Your task to perform on an android device: Open Reddit.com Image 0: 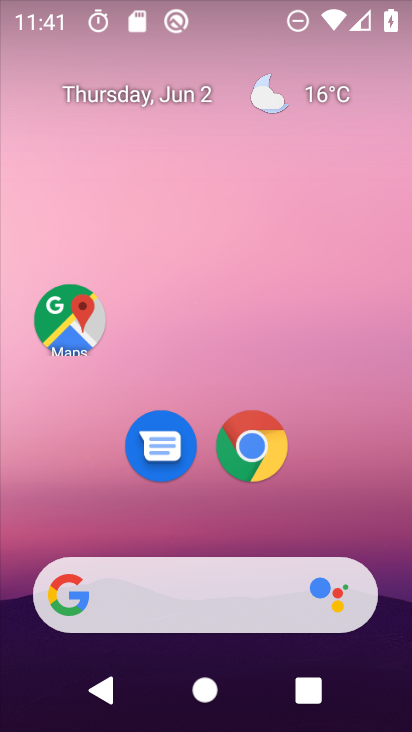
Step 0: click (350, 77)
Your task to perform on an android device: Open Reddit.com Image 1: 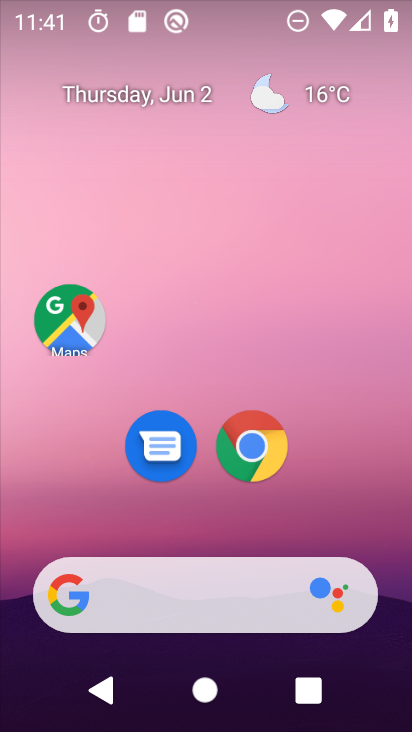
Step 1: drag from (347, 507) to (368, 82)
Your task to perform on an android device: Open Reddit.com Image 2: 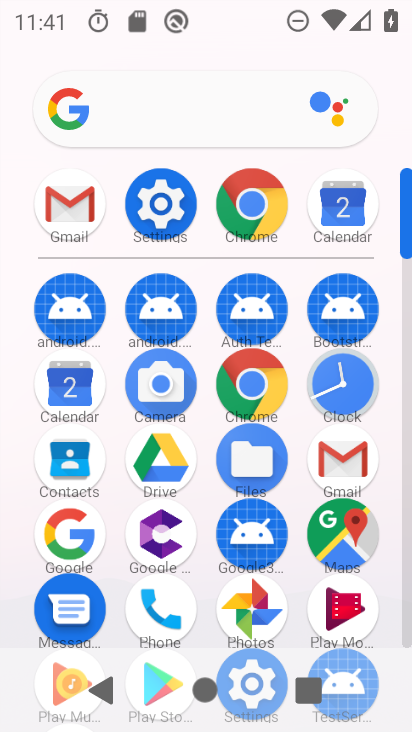
Step 2: click (262, 389)
Your task to perform on an android device: Open Reddit.com Image 3: 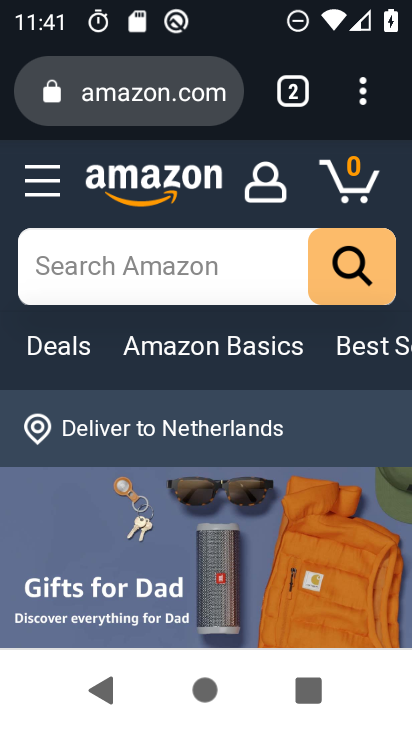
Step 3: click (187, 106)
Your task to perform on an android device: Open Reddit.com Image 4: 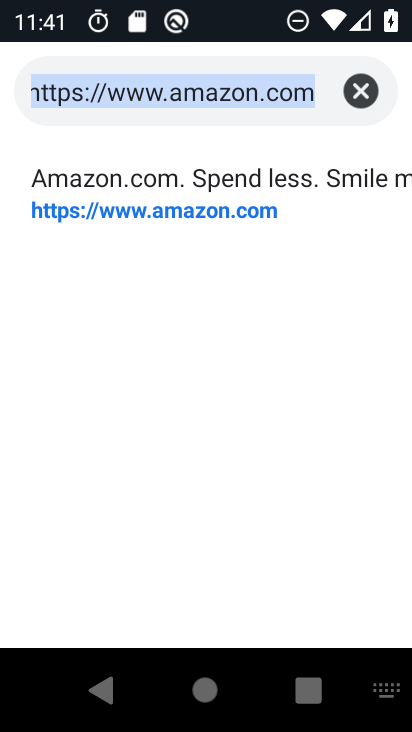
Step 4: click (361, 87)
Your task to perform on an android device: Open Reddit.com Image 5: 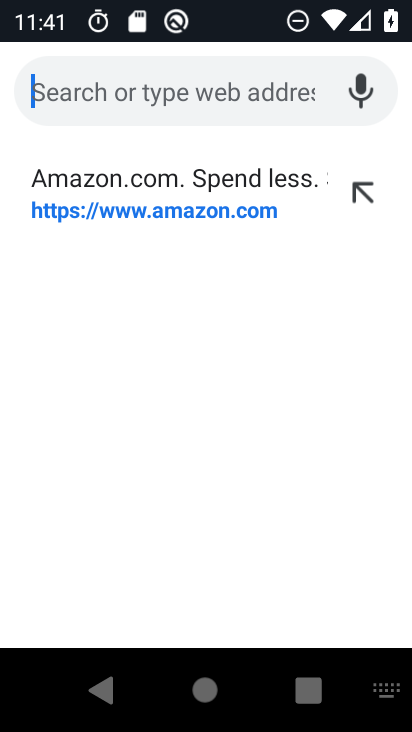
Step 5: click (275, 94)
Your task to perform on an android device: Open Reddit.com Image 6: 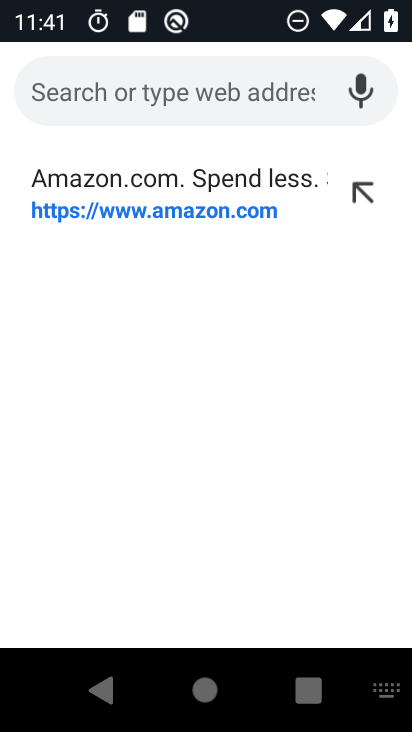
Step 6: type "reddit,com"
Your task to perform on an android device: Open Reddit.com Image 7: 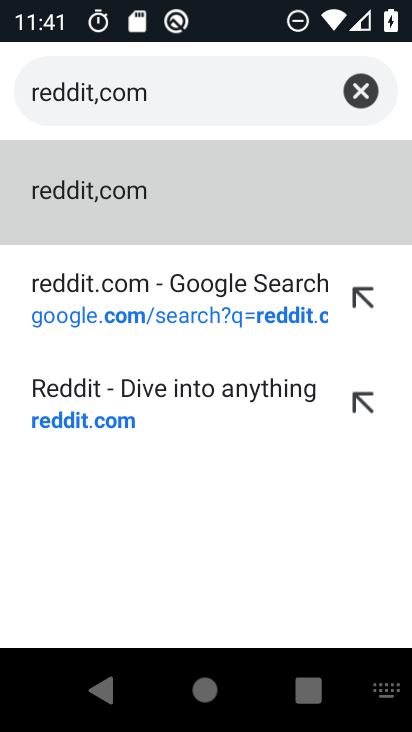
Step 7: click (199, 169)
Your task to perform on an android device: Open Reddit.com Image 8: 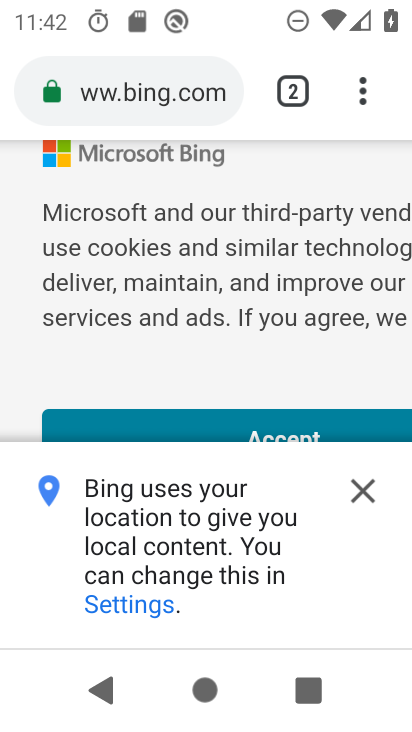
Step 8: task complete